Your task to perform on an android device: Toggle the flashlight Image 0: 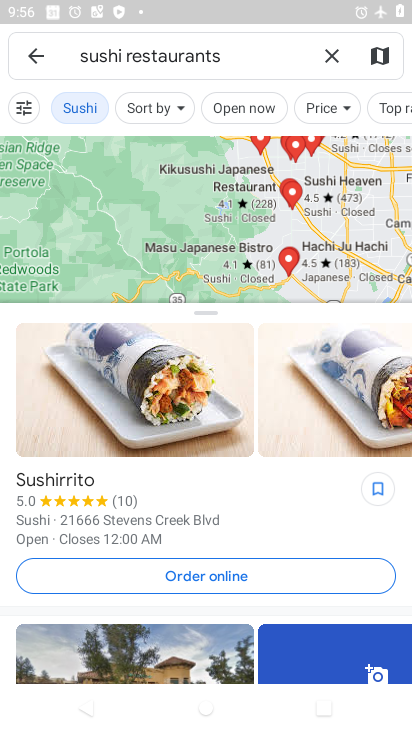
Step 0: press home button
Your task to perform on an android device: Toggle the flashlight Image 1: 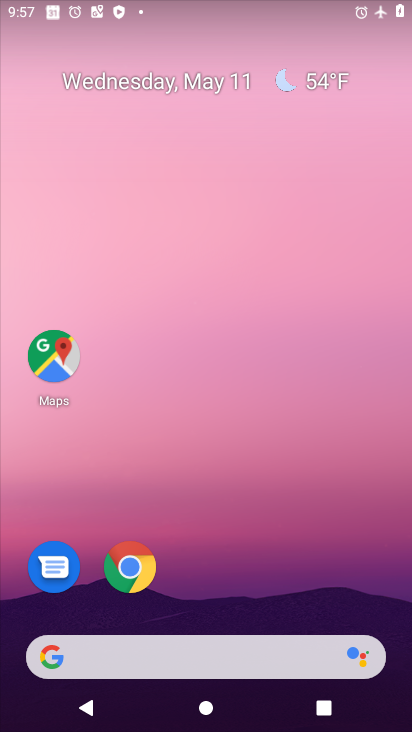
Step 1: drag from (212, 580) to (292, 2)
Your task to perform on an android device: Toggle the flashlight Image 2: 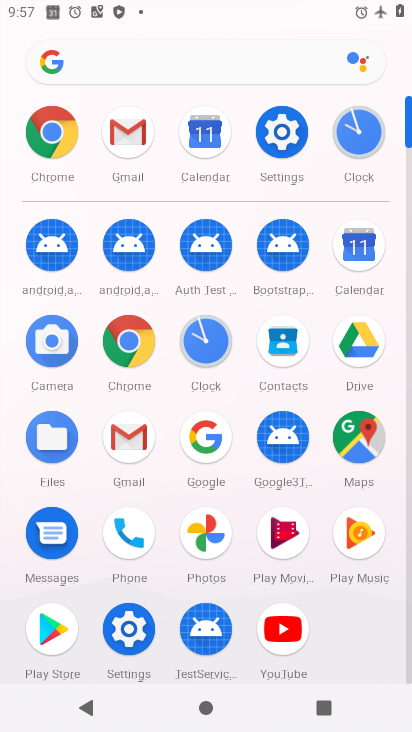
Step 2: click (287, 181)
Your task to perform on an android device: Toggle the flashlight Image 3: 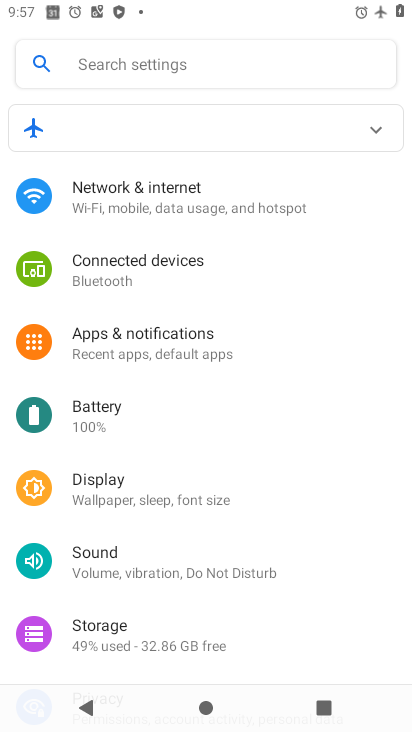
Step 3: click (210, 65)
Your task to perform on an android device: Toggle the flashlight Image 4: 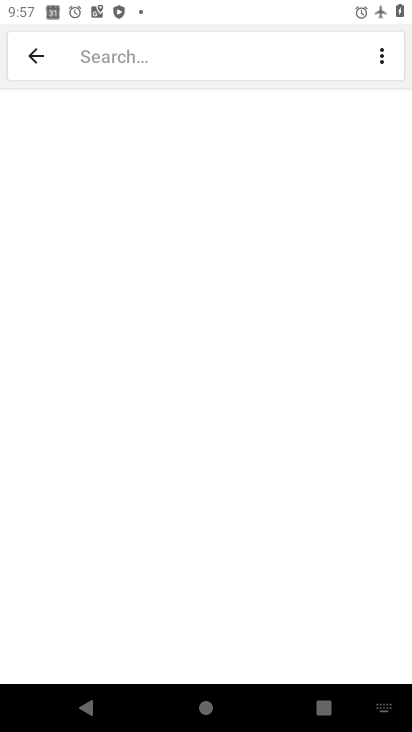
Step 4: type "flashlight"
Your task to perform on an android device: Toggle the flashlight Image 5: 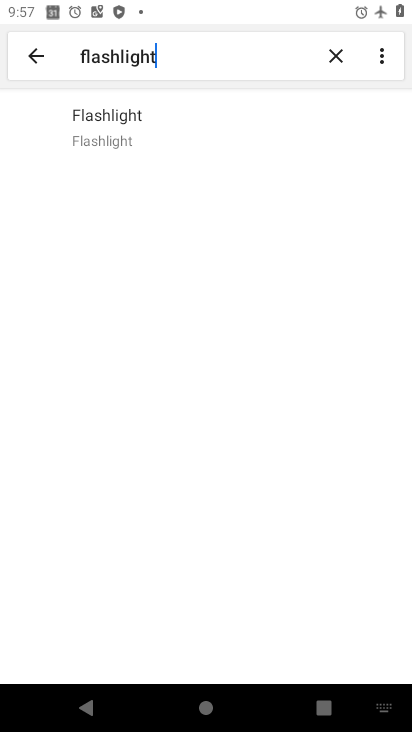
Step 5: click (234, 135)
Your task to perform on an android device: Toggle the flashlight Image 6: 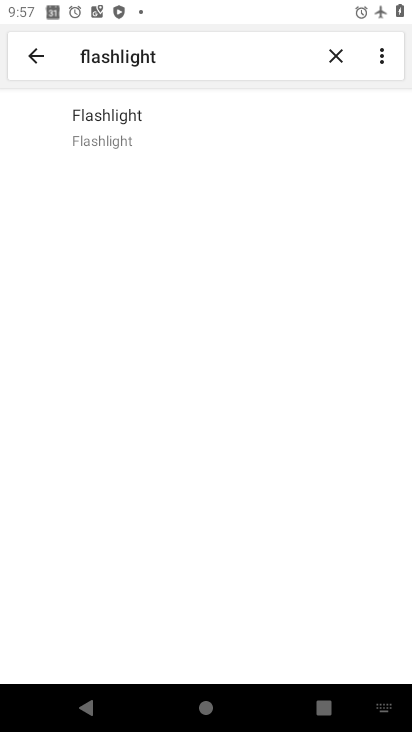
Step 6: click (93, 133)
Your task to perform on an android device: Toggle the flashlight Image 7: 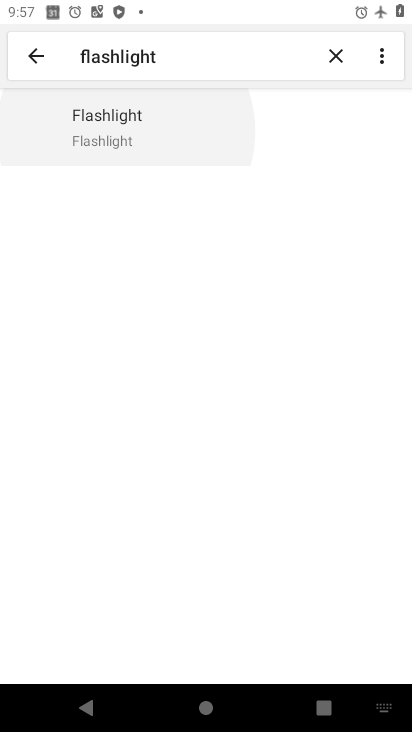
Step 7: click (93, 133)
Your task to perform on an android device: Toggle the flashlight Image 8: 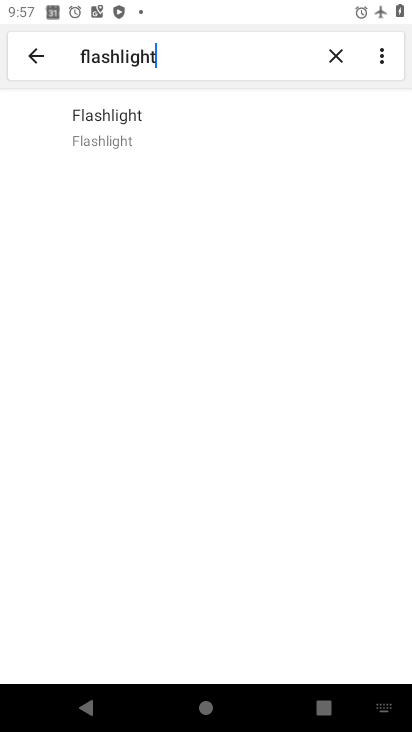
Step 8: click (93, 134)
Your task to perform on an android device: Toggle the flashlight Image 9: 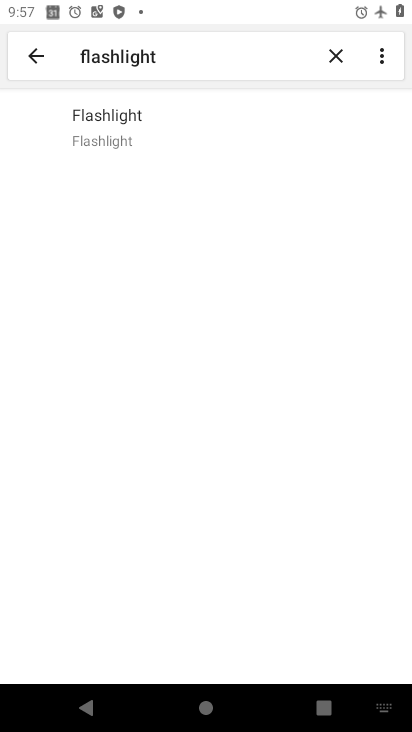
Step 9: task complete